Your task to perform on an android device: toggle show notifications on the lock screen Image 0: 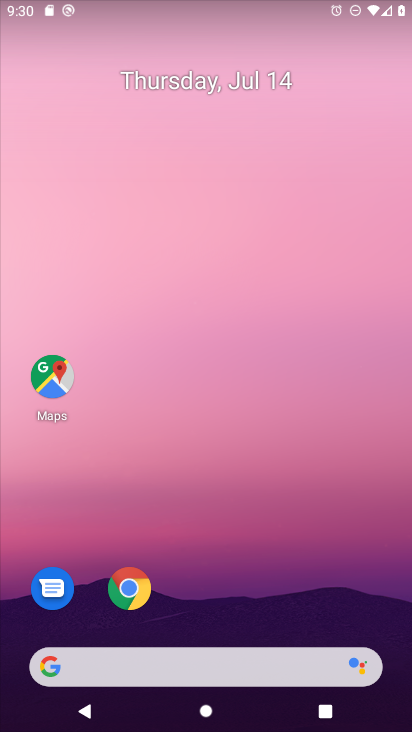
Step 0: drag from (222, 527) to (242, 74)
Your task to perform on an android device: toggle show notifications on the lock screen Image 1: 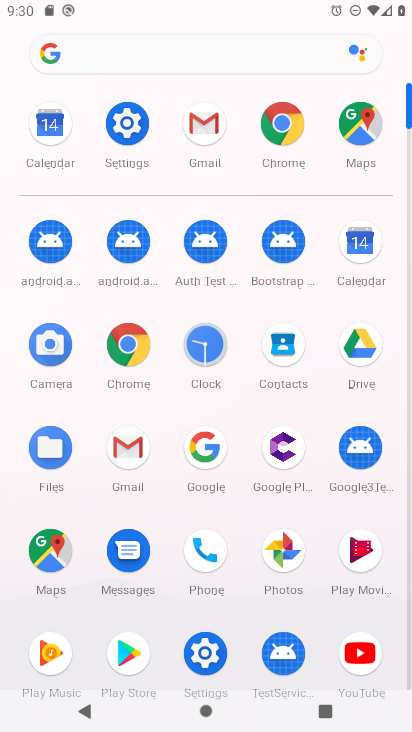
Step 1: click (148, 130)
Your task to perform on an android device: toggle show notifications on the lock screen Image 2: 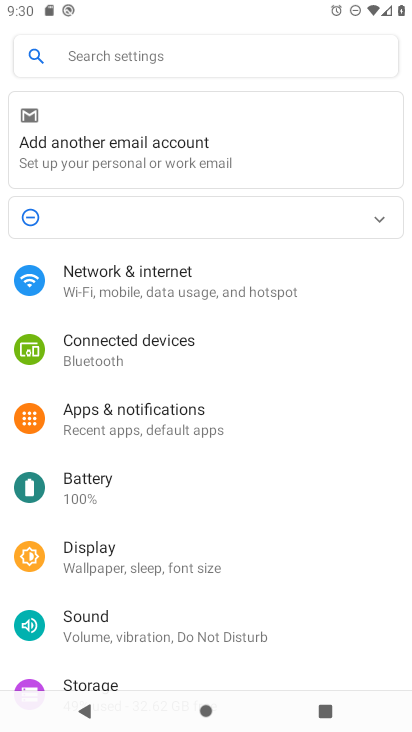
Step 2: click (145, 411)
Your task to perform on an android device: toggle show notifications on the lock screen Image 3: 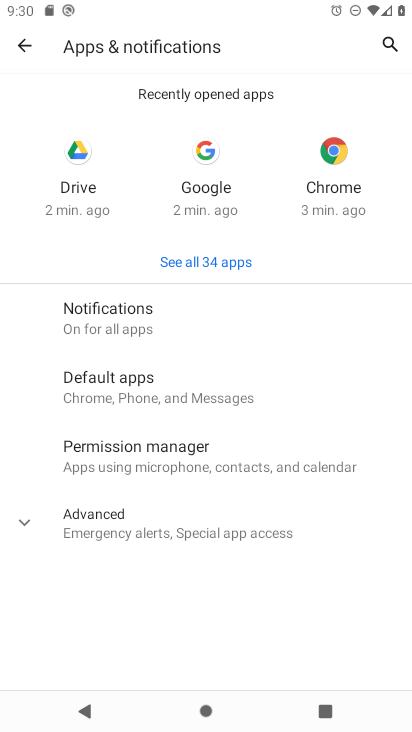
Step 3: click (98, 320)
Your task to perform on an android device: toggle show notifications on the lock screen Image 4: 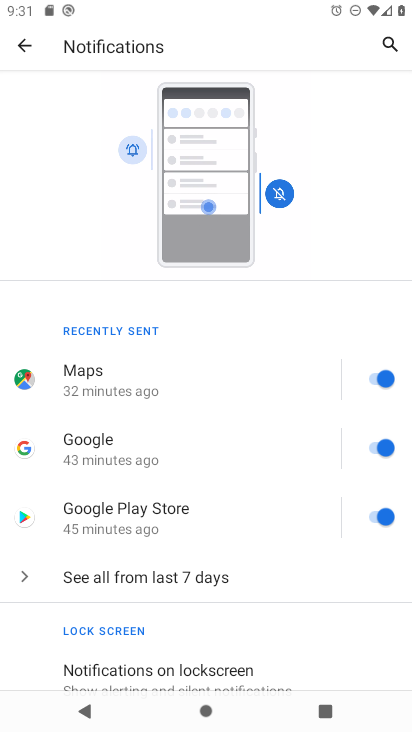
Step 4: drag from (216, 621) to (181, 246)
Your task to perform on an android device: toggle show notifications on the lock screen Image 5: 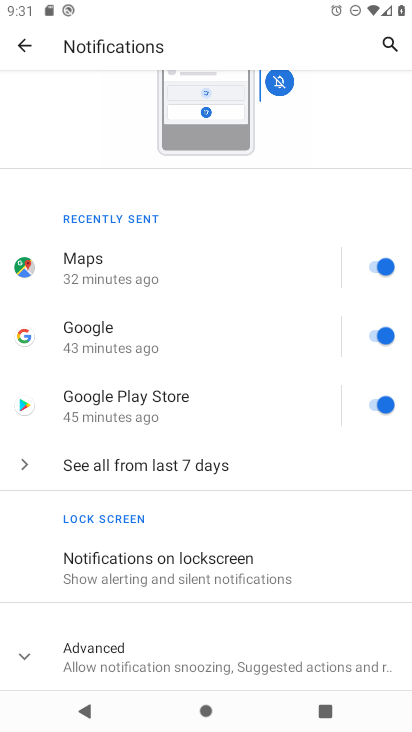
Step 5: click (153, 577)
Your task to perform on an android device: toggle show notifications on the lock screen Image 6: 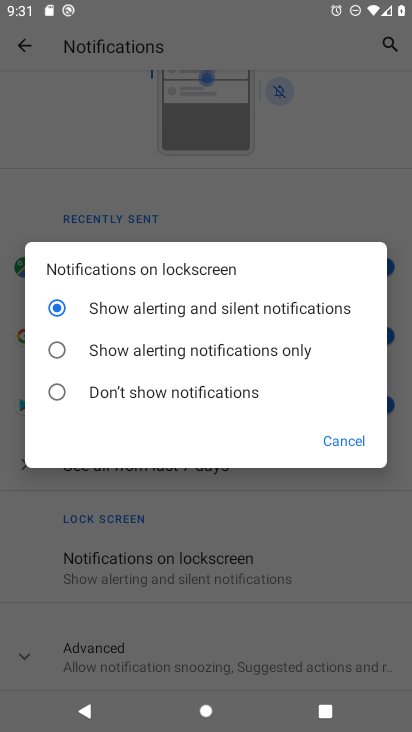
Step 6: click (59, 342)
Your task to perform on an android device: toggle show notifications on the lock screen Image 7: 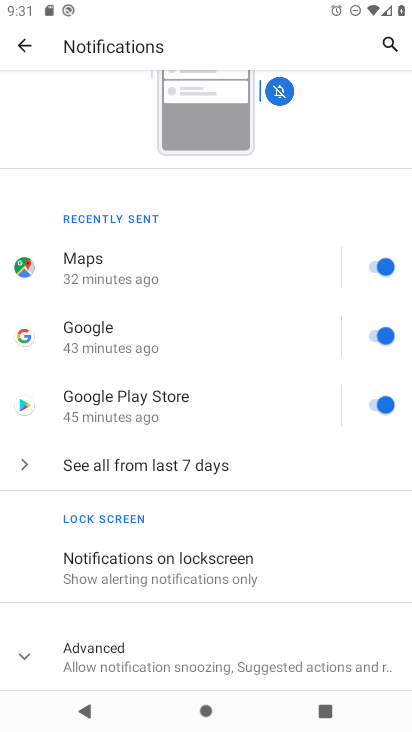
Step 7: task complete